Your task to perform on an android device: turn off javascript in the chrome app Image 0: 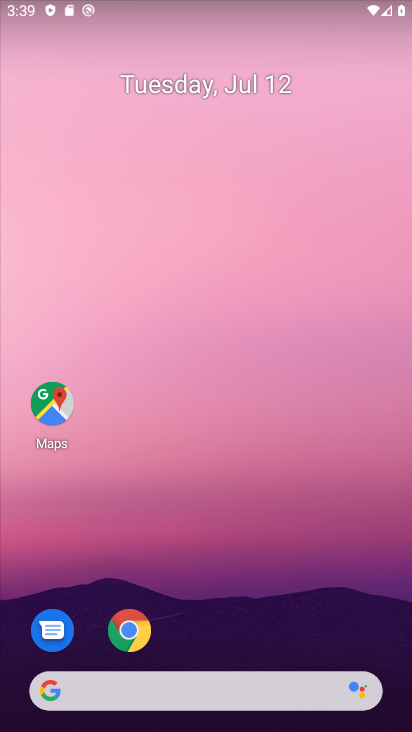
Step 0: click (134, 623)
Your task to perform on an android device: turn off javascript in the chrome app Image 1: 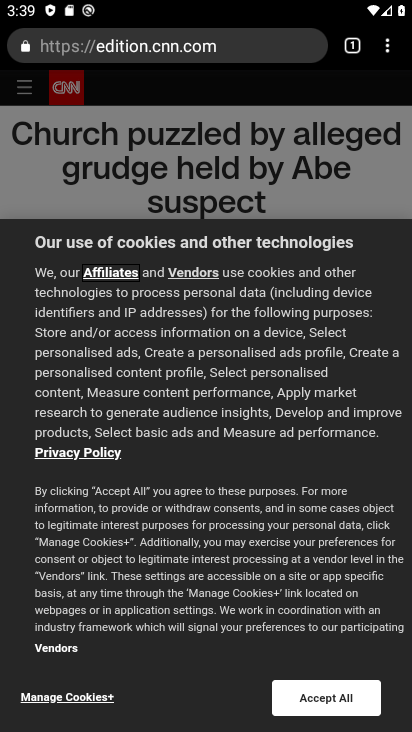
Step 1: click (383, 38)
Your task to perform on an android device: turn off javascript in the chrome app Image 2: 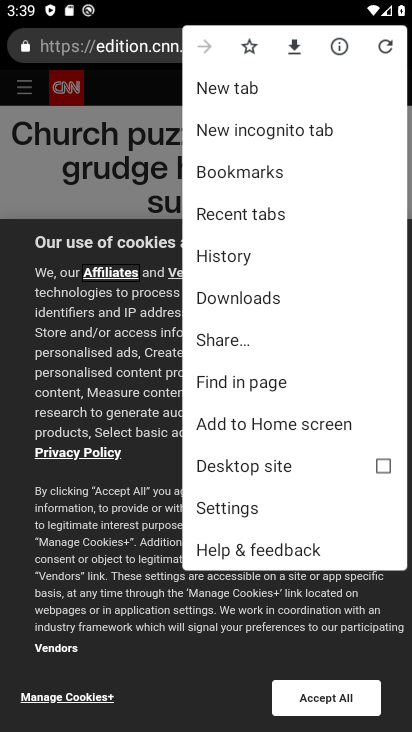
Step 2: click (241, 509)
Your task to perform on an android device: turn off javascript in the chrome app Image 3: 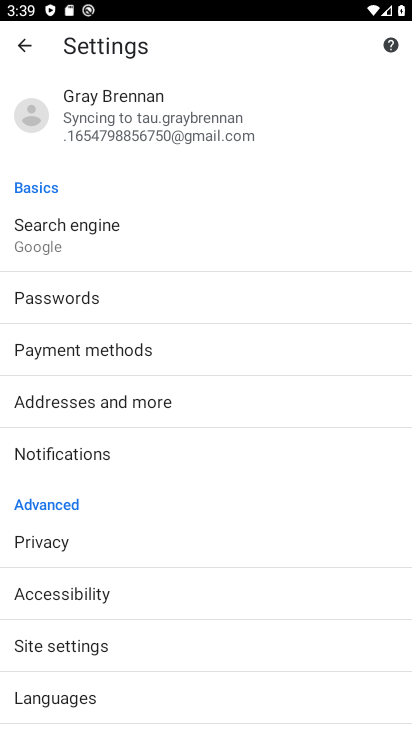
Step 3: click (107, 657)
Your task to perform on an android device: turn off javascript in the chrome app Image 4: 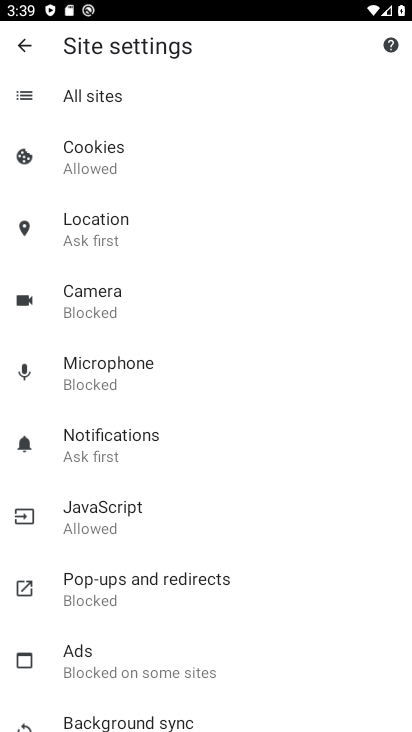
Step 4: click (152, 508)
Your task to perform on an android device: turn off javascript in the chrome app Image 5: 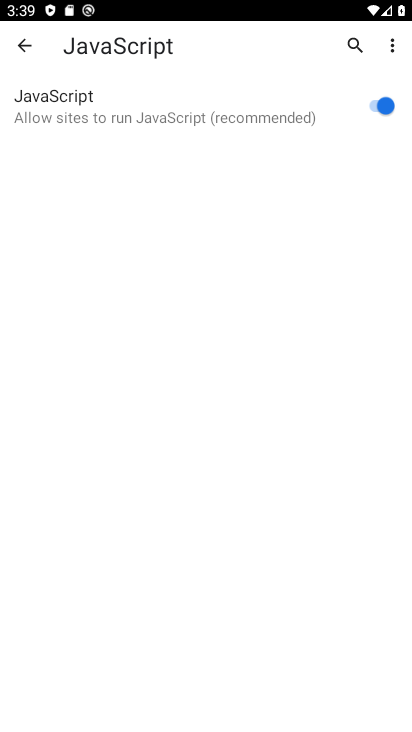
Step 5: click (366, 96)
Your task to perform on an android device: turn off javascript in the chrome app Image 6: 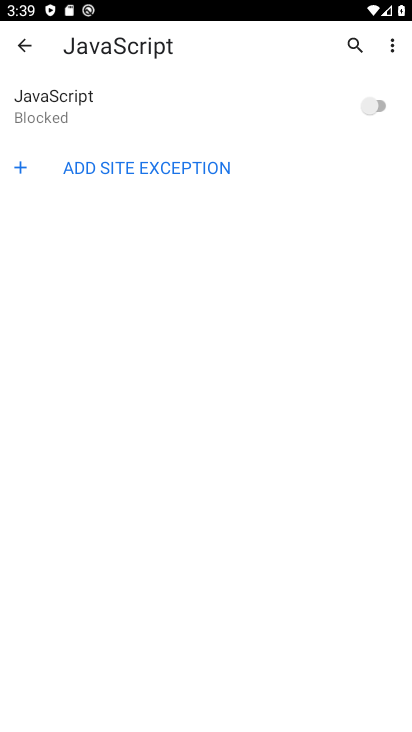
Step 6: task complete